Your task to perform on an android device: Open Google Maps Image 0: 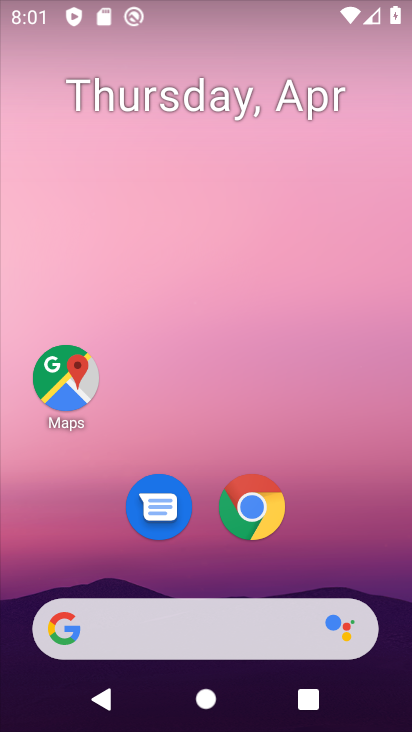
Step 0: drag from (343, 445) to (343, 6)
Your task to perform on an android device: Open Google Maps Image 1: 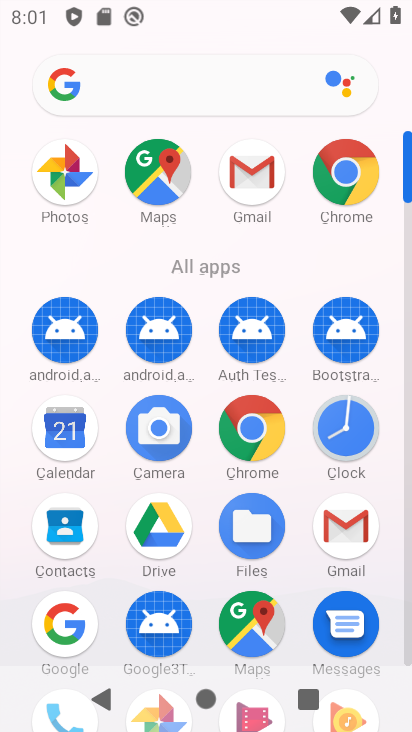
Step 1: click (70, 609)
Your task to perform on an android device: Open Google Maps Image 2: 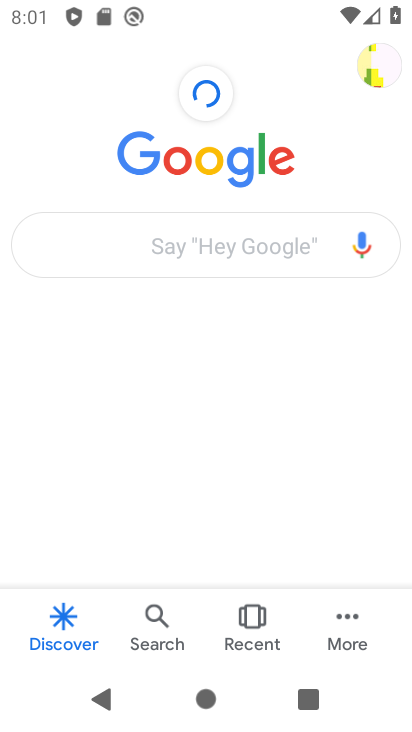
Step 2: task complete